Your task to perform on an android device: change notification settings in the gmail app Image 0: 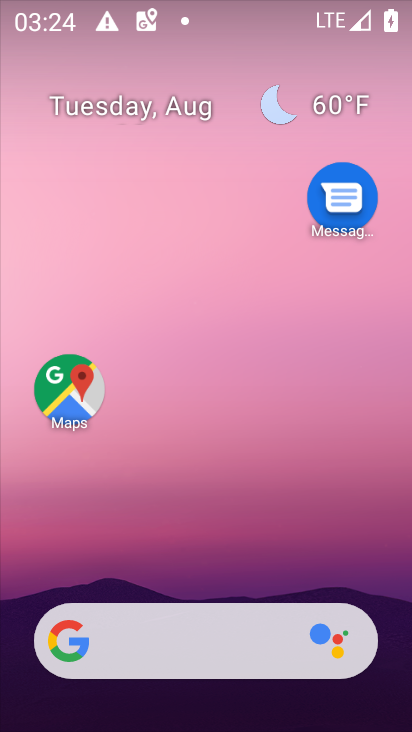
Step 0: drag from (219, 602) to (210, 37)
Your task to perform on an android device: change notification settings in the gmail app Image 1: 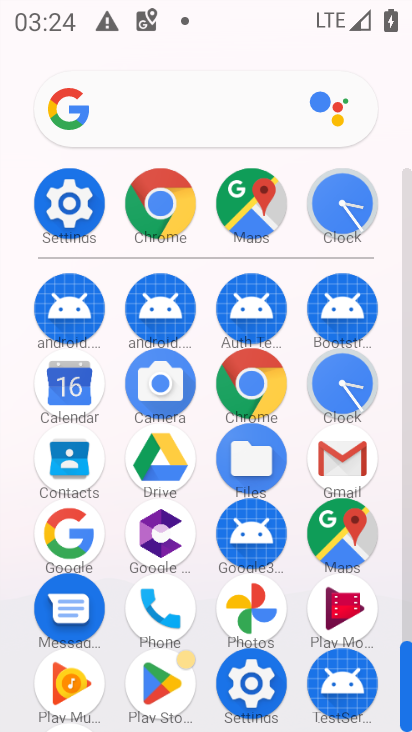
Step 1: click (59, 227)
Your task to perform on an android device: change notification settings in the gmail app Image 2: 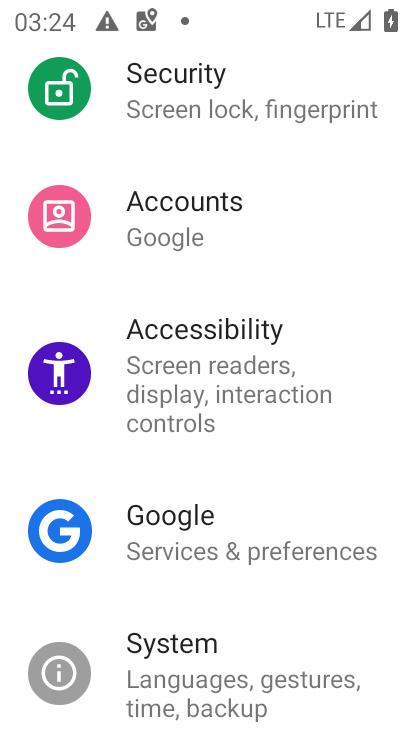
Step 2: drag from (149, 203) to (237, 666)
Your task to perform on an android device: change notification settings in the gmail app Image 3: 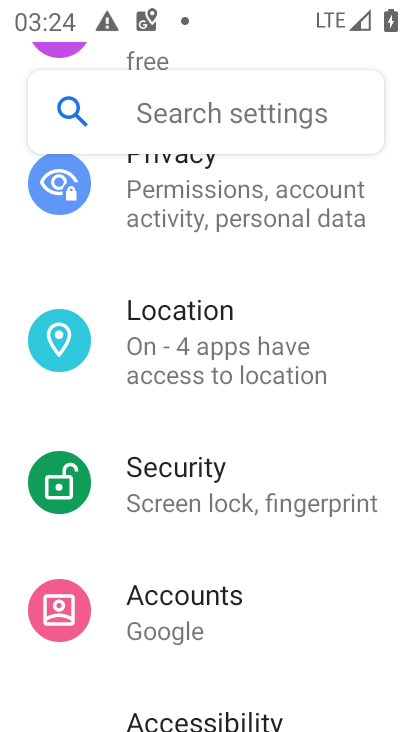
Step 3: drag from (168, 300) to (190, 681)
Your task to perform on an android device: change notification settings in the gmail app Image 4: 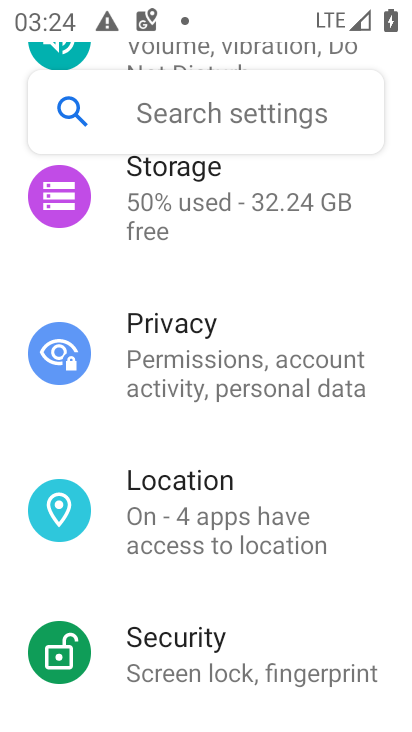
Step 4: drag from (149, 257) to (183, 718)
Your task to perform on an android device: change notification settings in the gmail app Image 5: 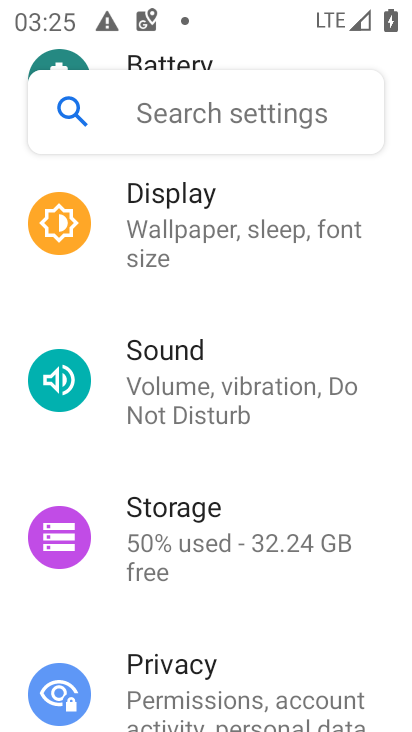
Step 5: drag from (167, 310) to (158, 678)
Your task to perform on an android device: change notification settings in the gmail app Image 6: 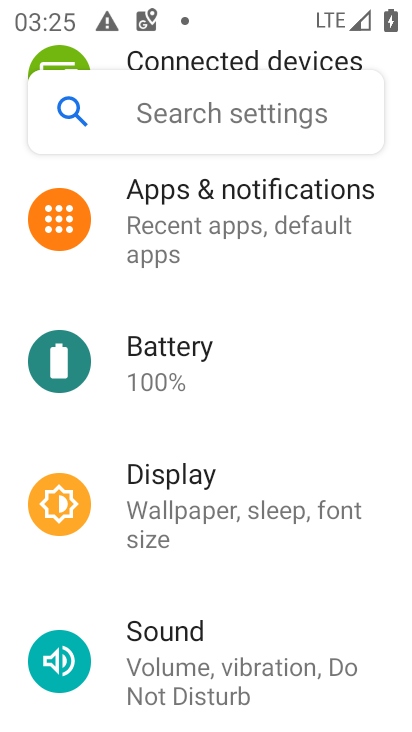
Step 6: click (151, 270)
Your task to perform on an android device: change notification settings in the gmail app Image 7: 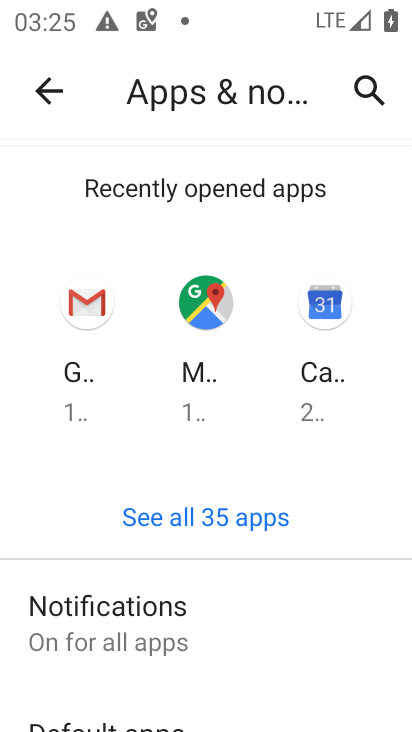
Step 7: task complete